Your task to perform on an android device: Set the phone to "Do not disturb". Image 0: 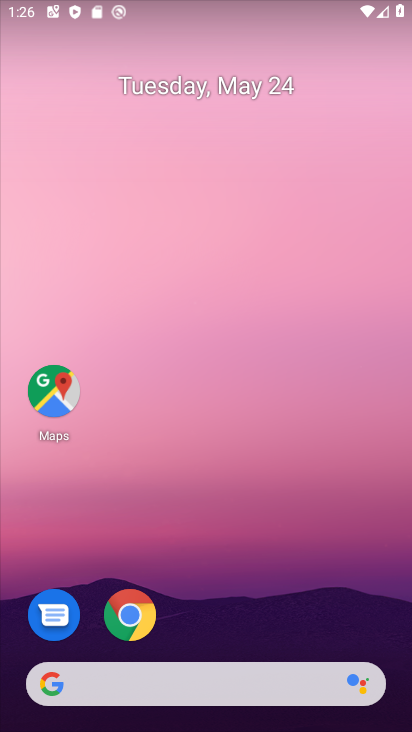
Step 0: drag from (166, 9) to (147, 516)
Your task to perform on an android device: Set the phone to "Do not disturb". Image 1: 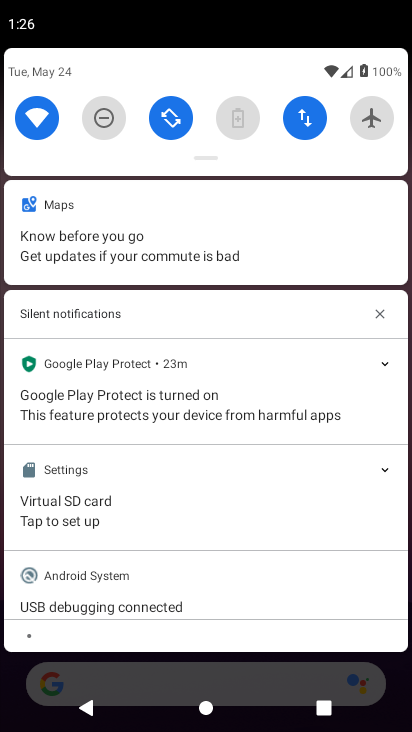
Step 1: click (96, 109)
Your task to perform on an android device: Set the phone to "Do not disturb". Image 2: 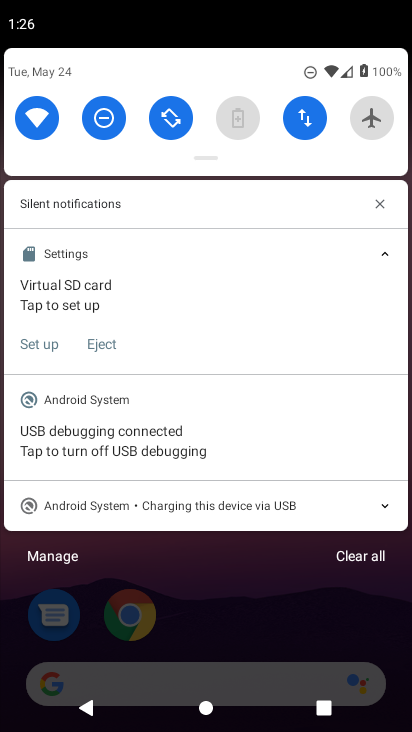
Step 2: task complete